Your task to perform on an android device: Toggle the flashlight Image 0: 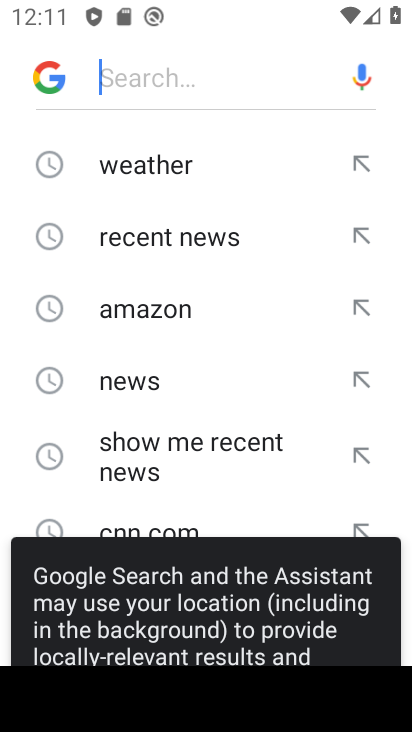
Step 0: press home button
Your task to perform on an android device: Toggle the flashlight Image 1: 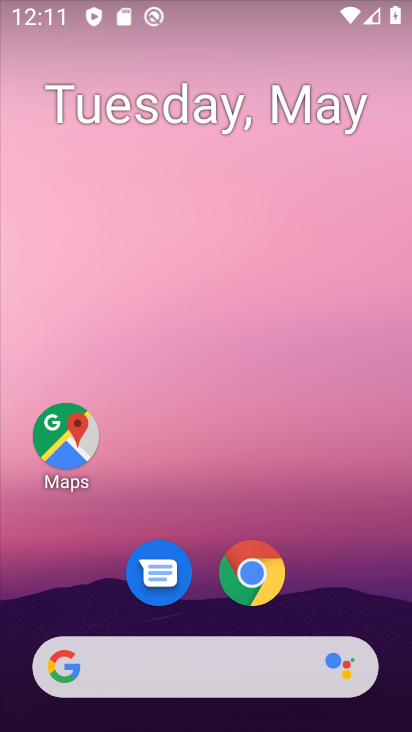
Step 1: drag from (346, 534) to (301, 1)
Your task to perform on an android device: Toggle the flashlight Image 2: 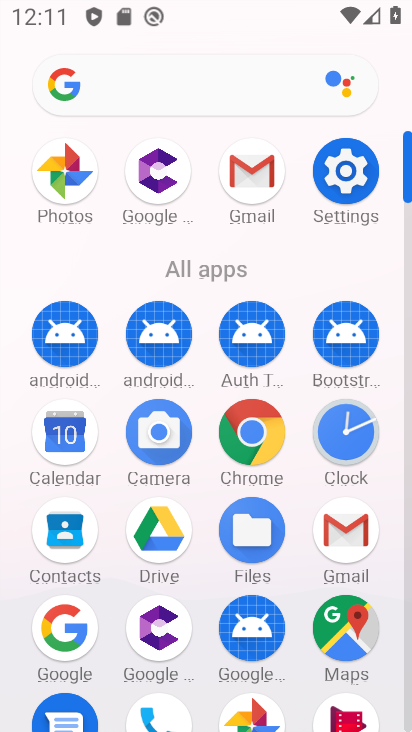
Step 2: click (341, 161)
Your task to perform on an android device: Toggle the flashlight Image 3: 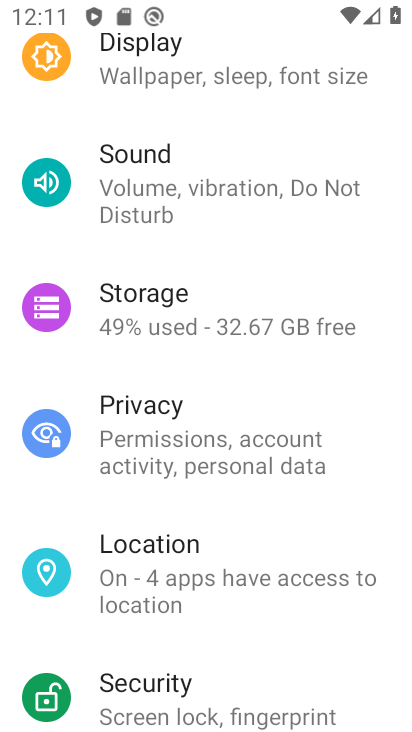
Step 3: task complete